Your task to perform on an android device: Open internet settings Image 0: 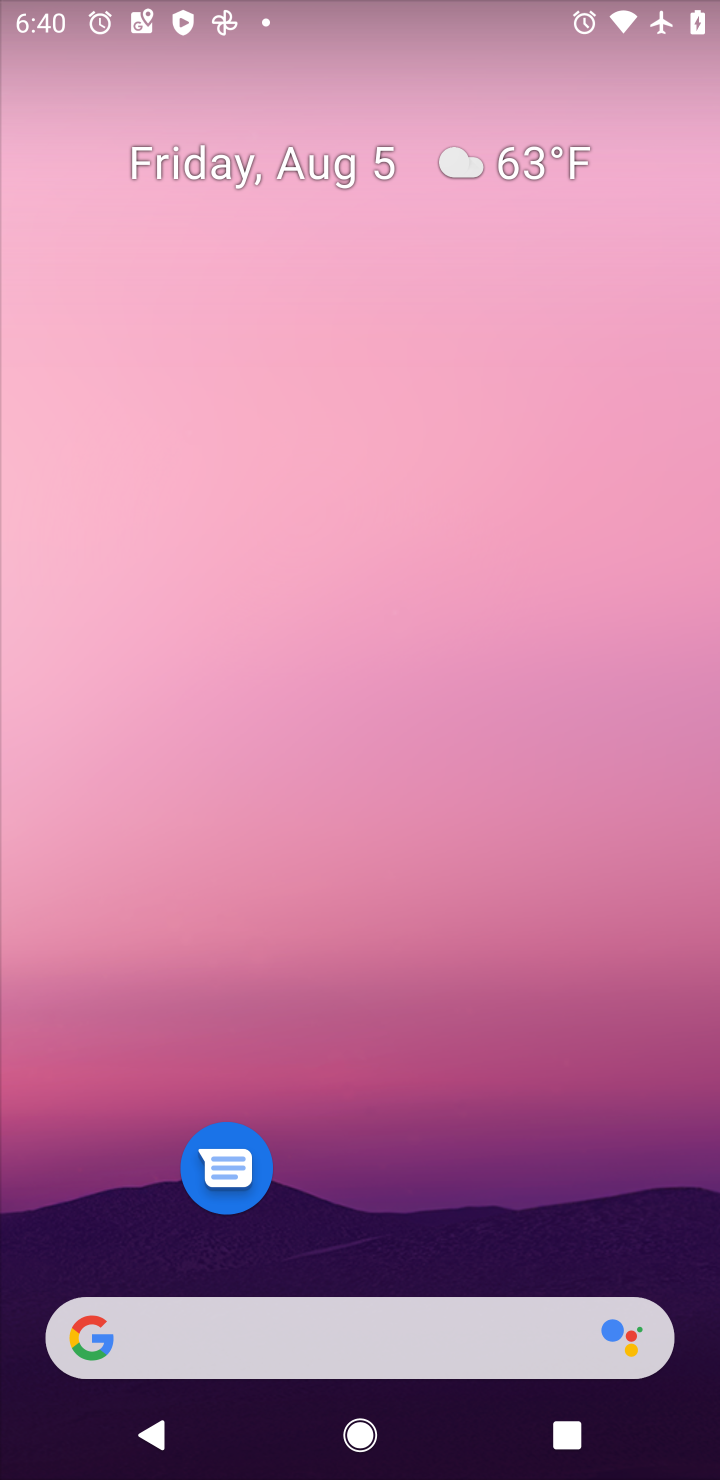
Step 0: press home button
Your task to perform on an android device: Open internet settings Image 1: 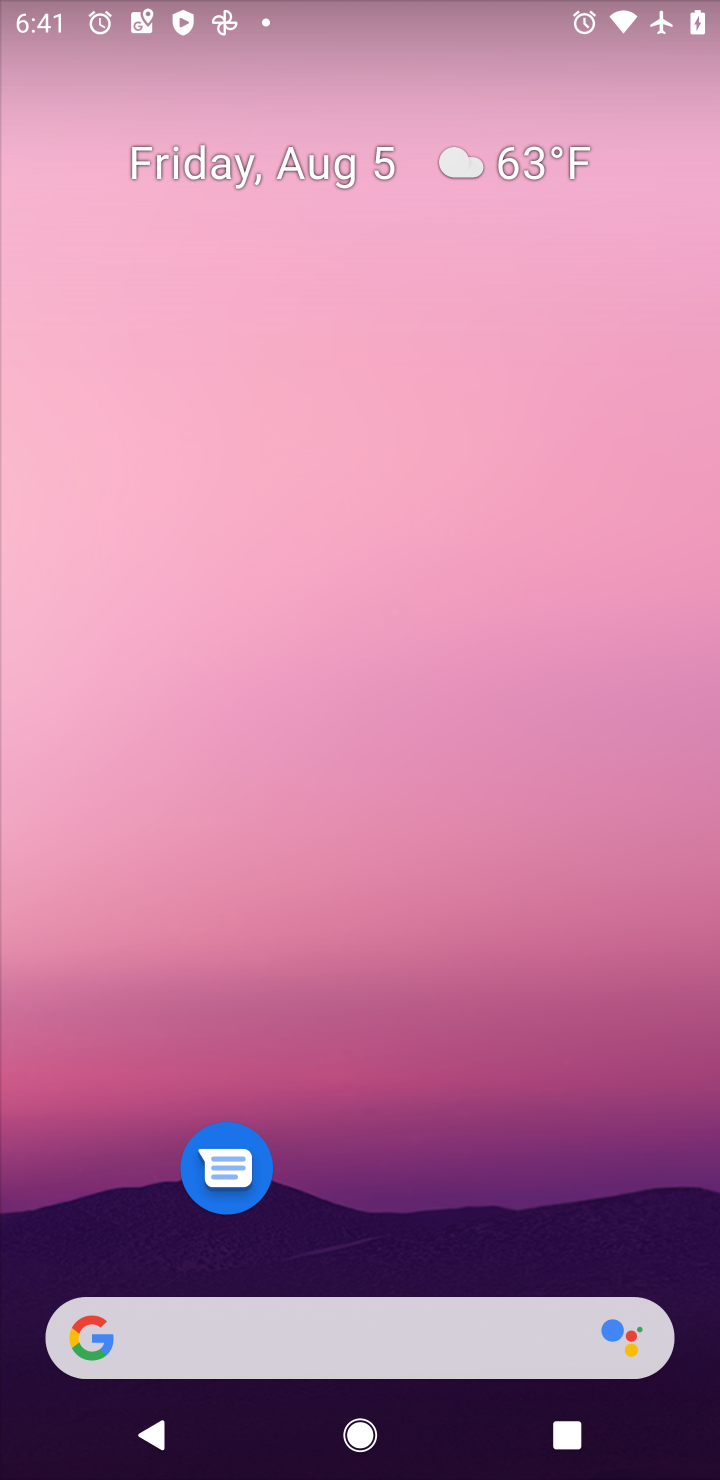
Step 1: drag from (442, 1078) to (475, 398)
Your task to perform on an android device: Open internet settings Image 2: 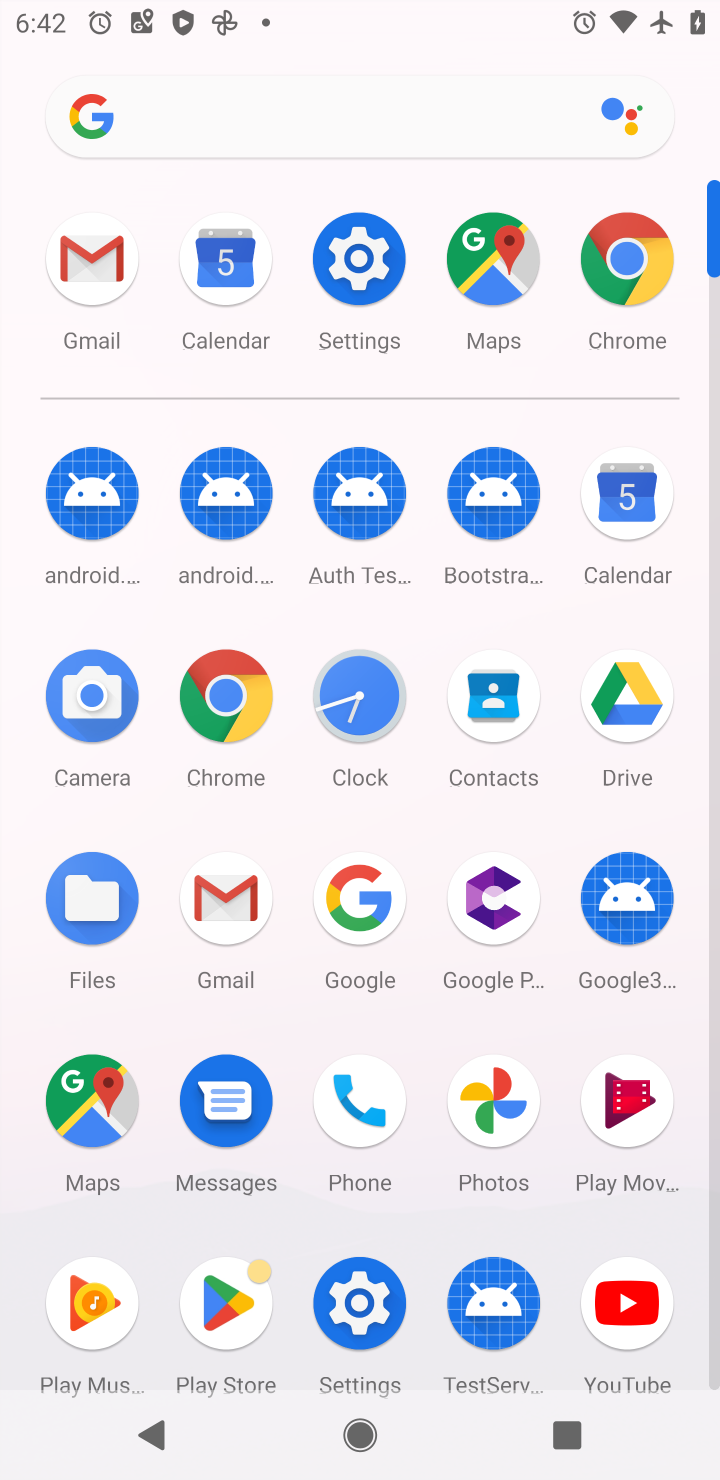
Step 2: click (369, 257)
Your task to perform on an android device: Open internet settings Image 3: 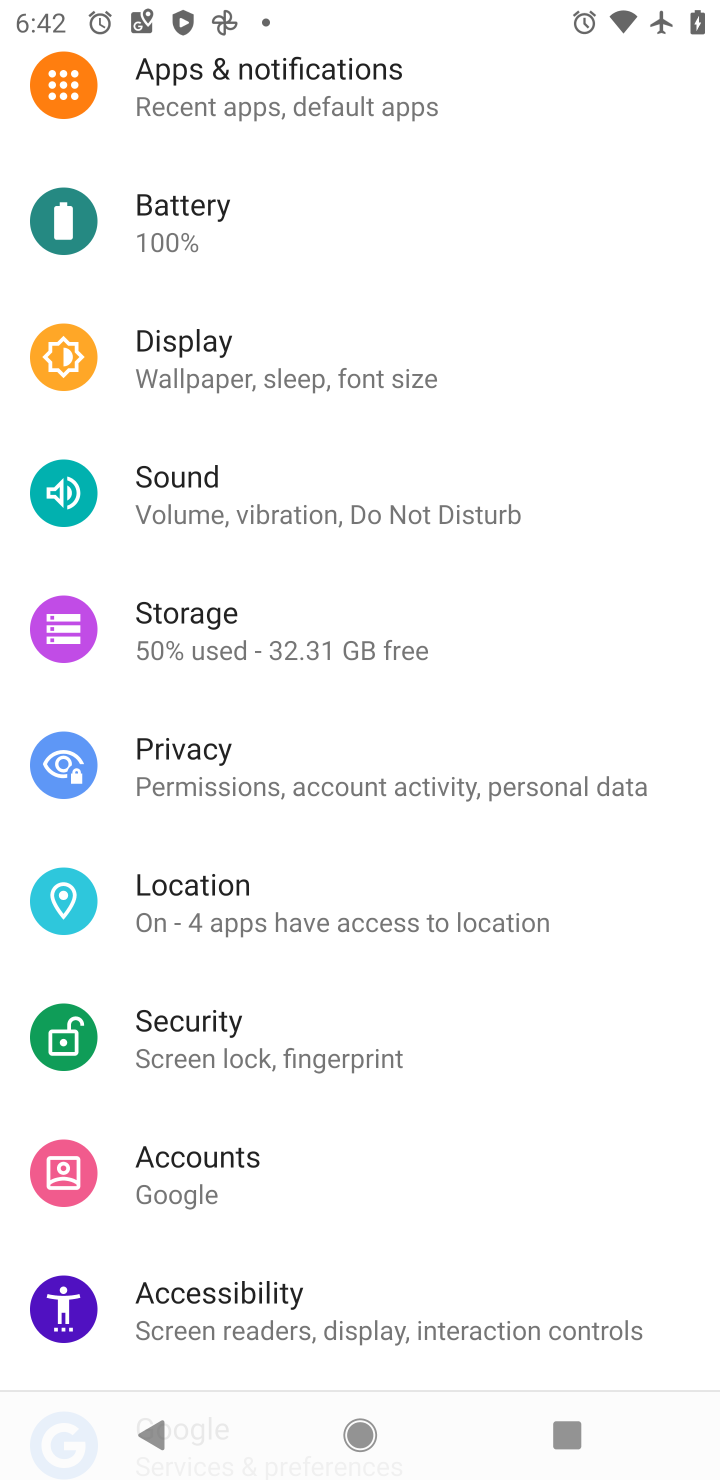
Step 3: drag from (400, 218) to (359, 1401)
Your task to perform on an android device: Open internet settings Image 4: 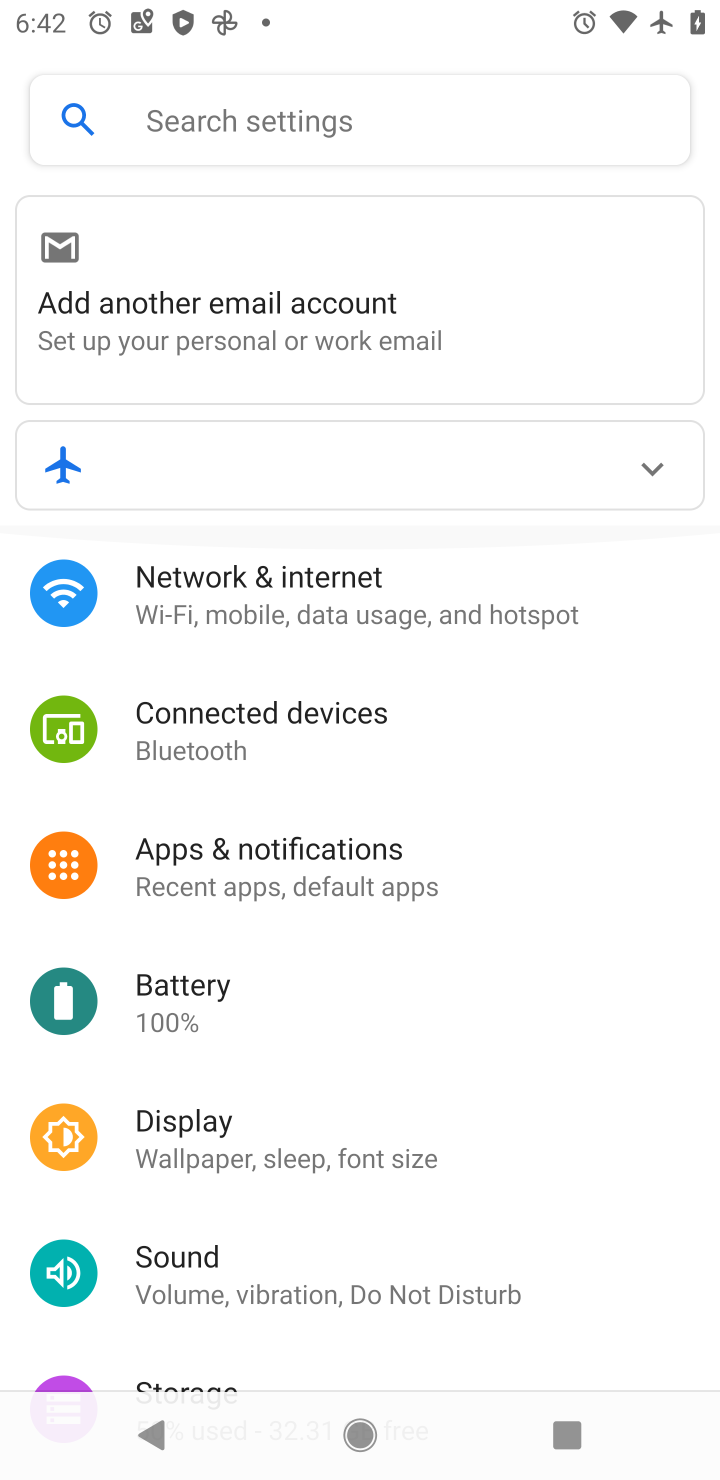
Step 4: click (245, 603)
Your task to perform on an android device: Open internet settings Image 5: 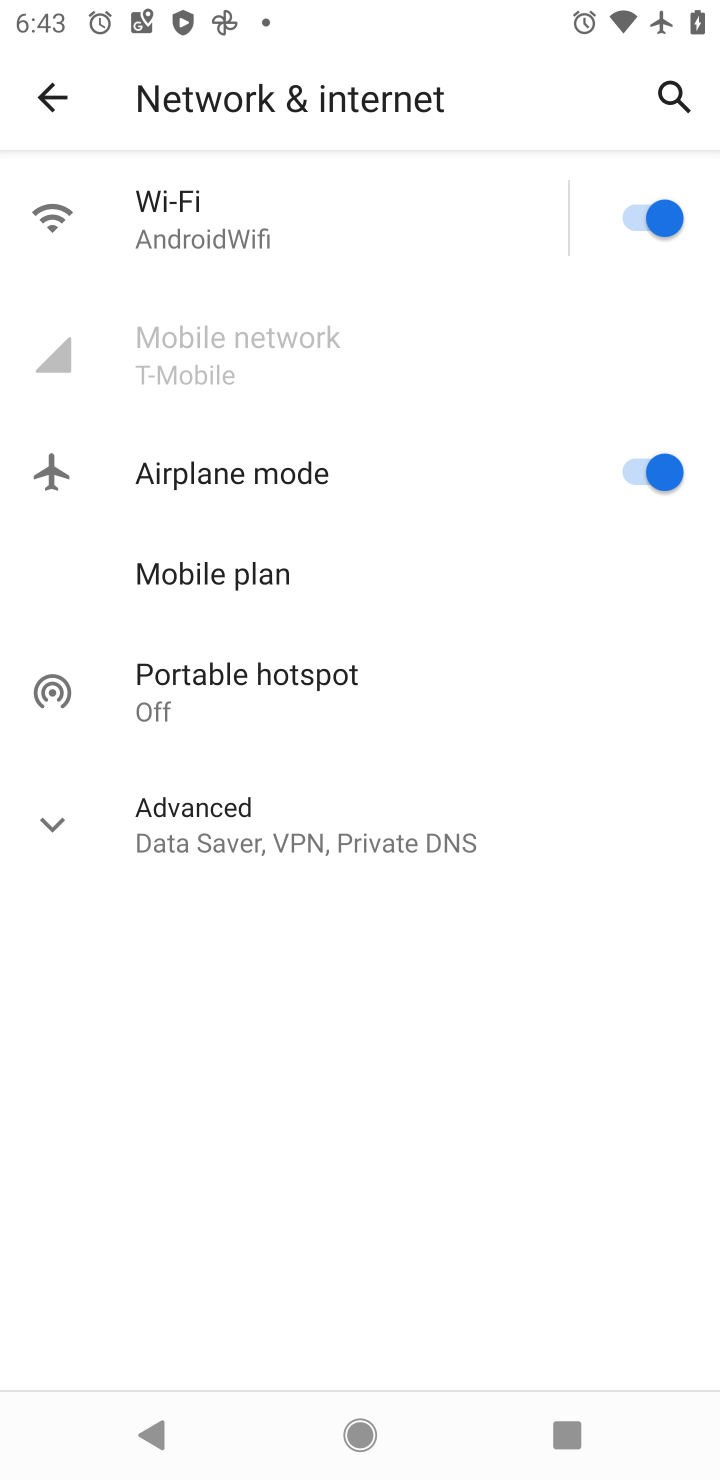
Step 5: click (182, 228)
Your task to perform on an android device: Open internet settings Image 6: 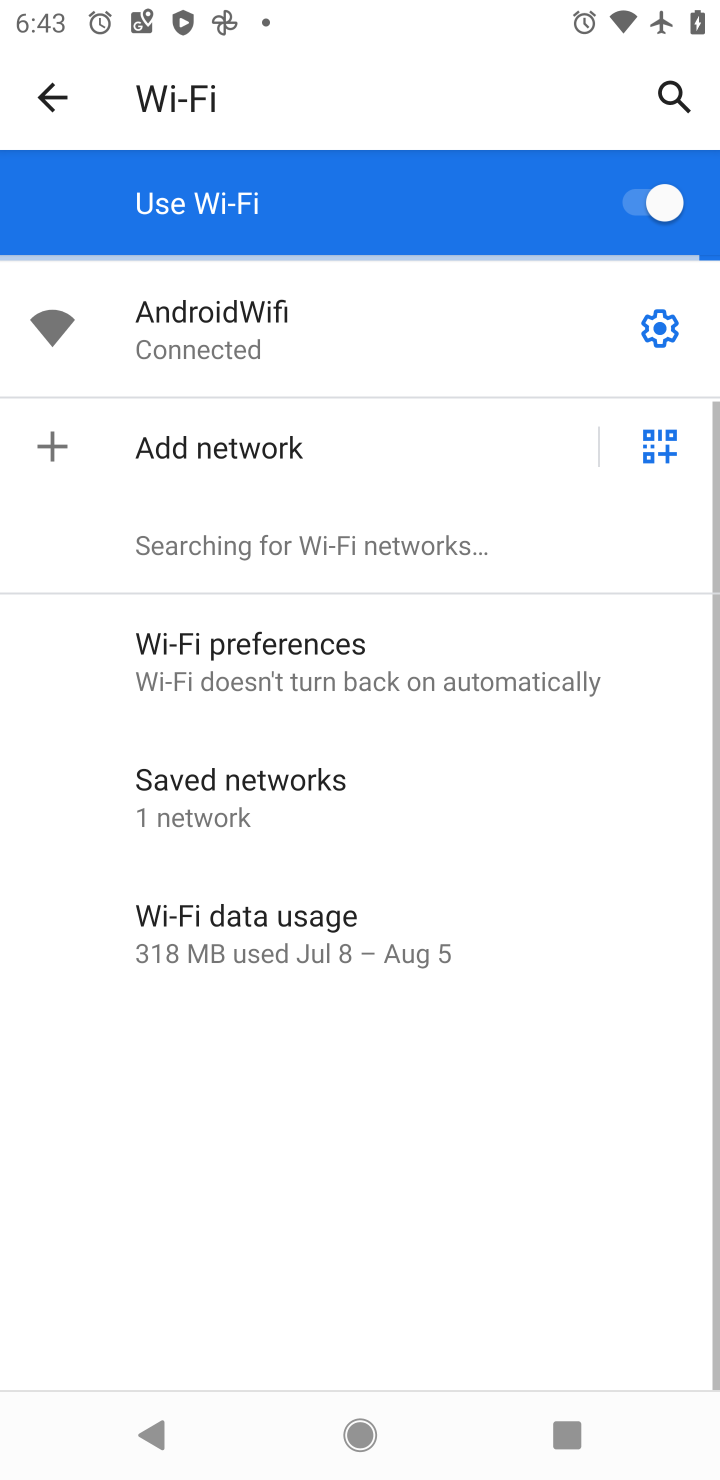
Step 6: click (202, 334)
Your task to perform on an android device: Open internet settings Image 7: 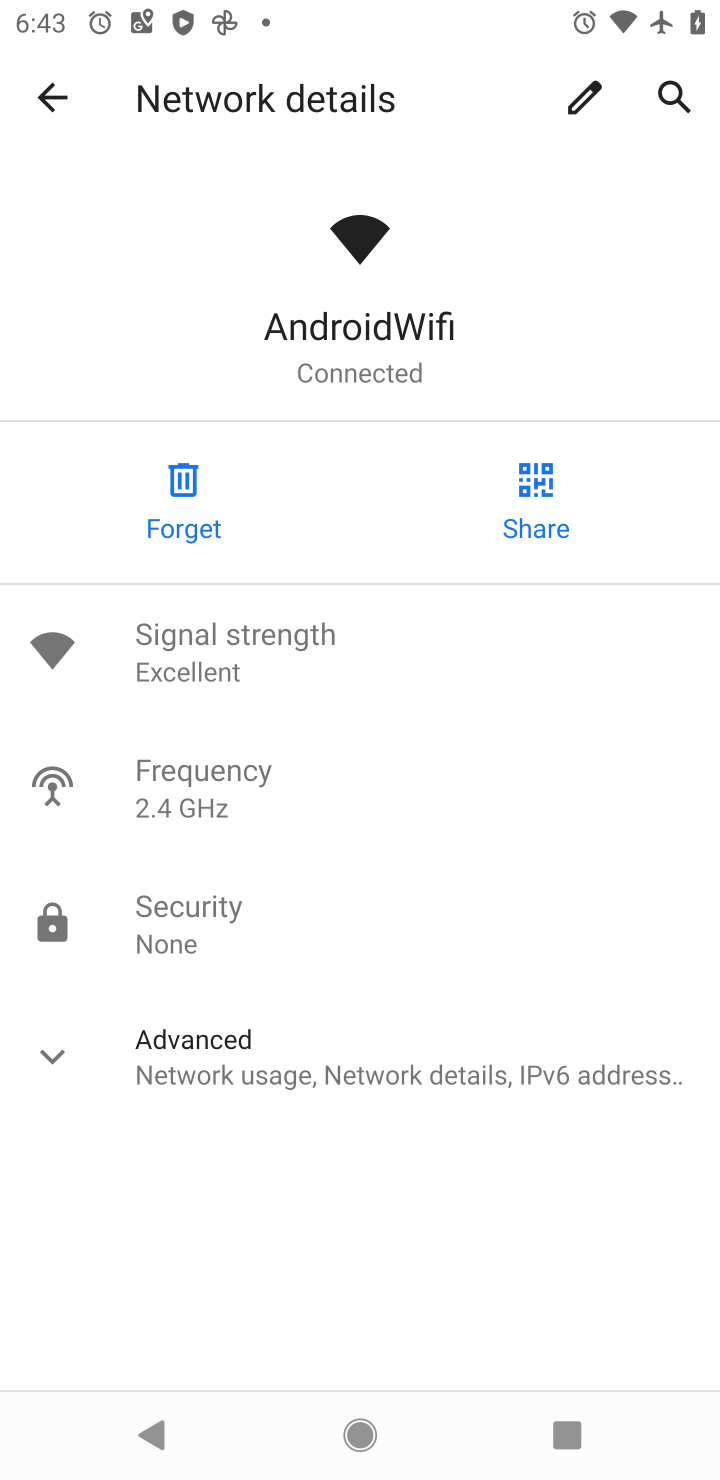
Step 7: task complete